Your task to perform on an android device: clear history in the chrome app Image 0: 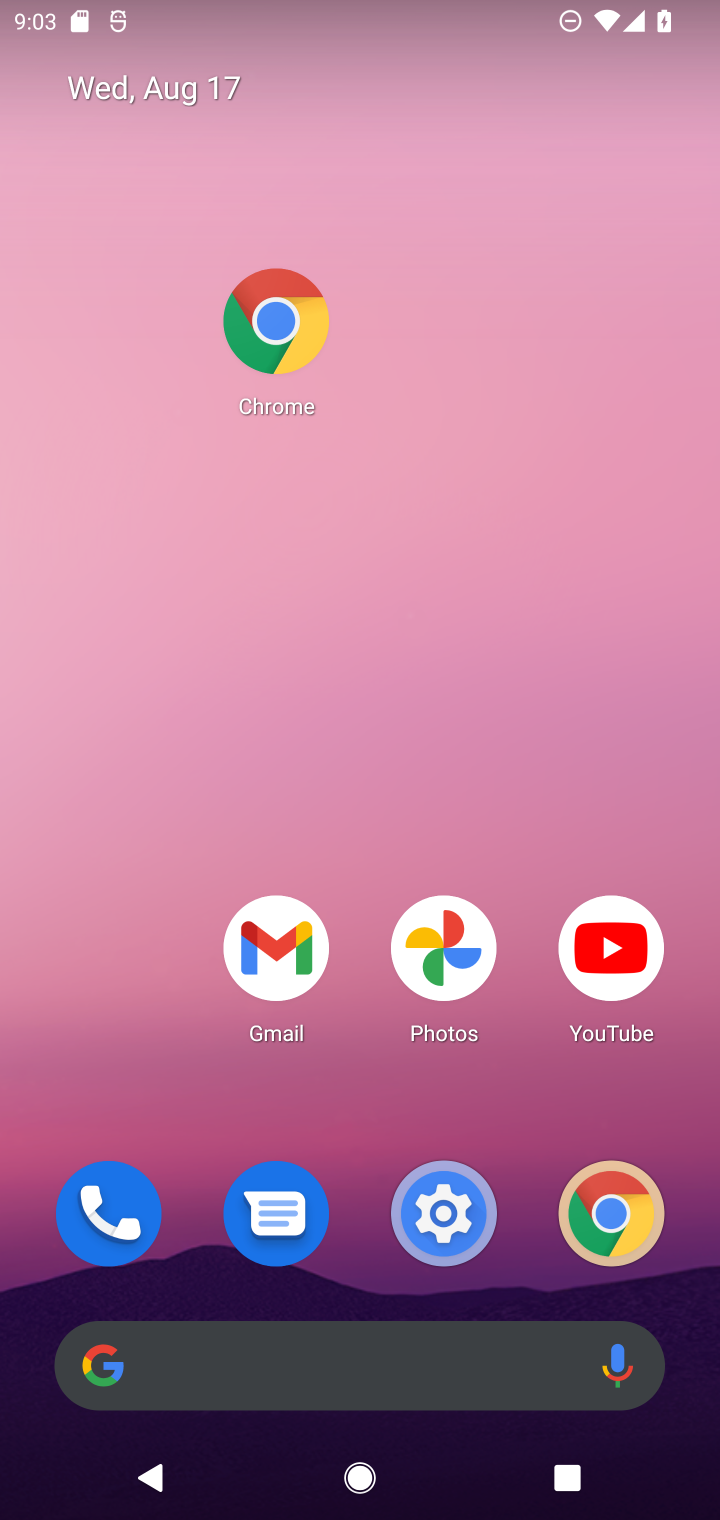
Step 0: click (601, 1192)
Your task to perform on an android device: clear history in the chrome app Image 1: 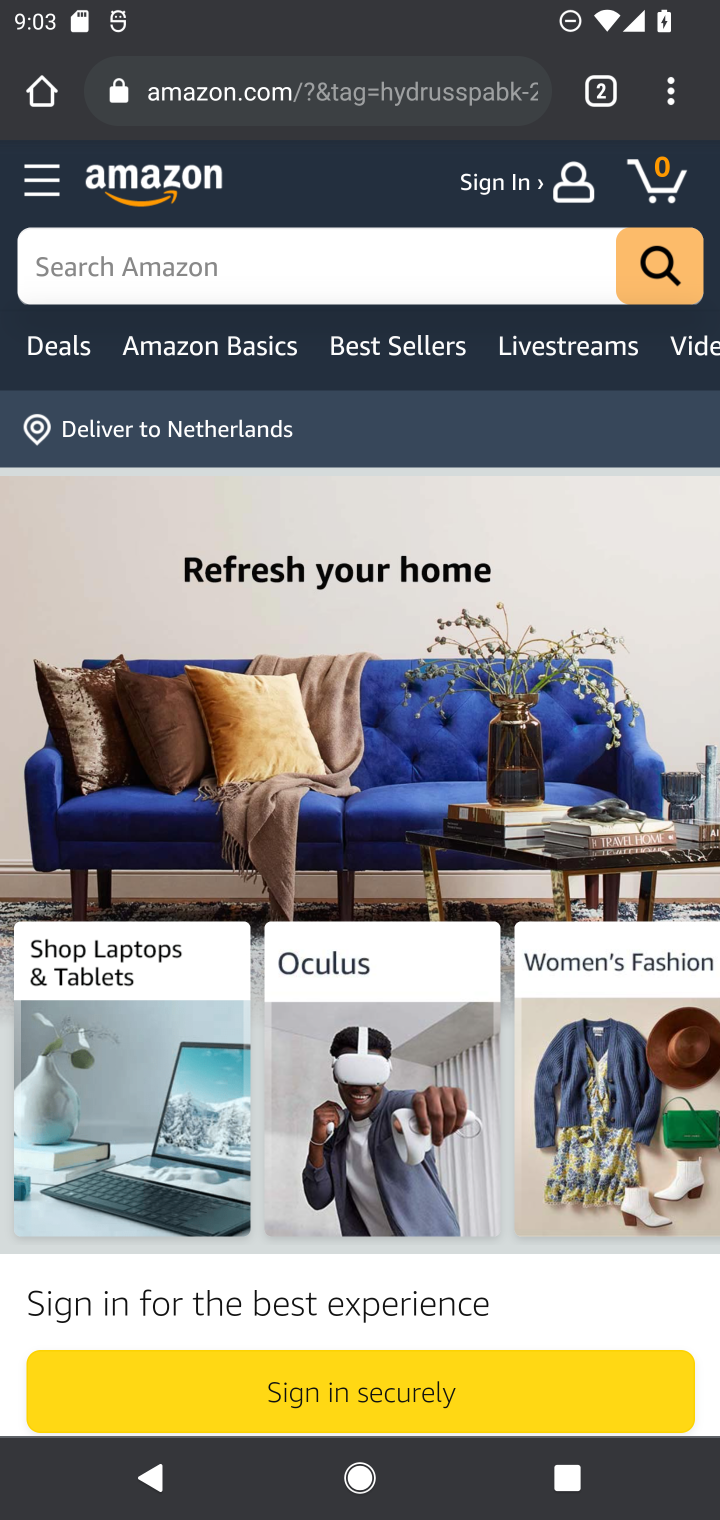
Step 1: click (682, 85)
Your task to perform on an android device: clear history in the chrome app Image 2: 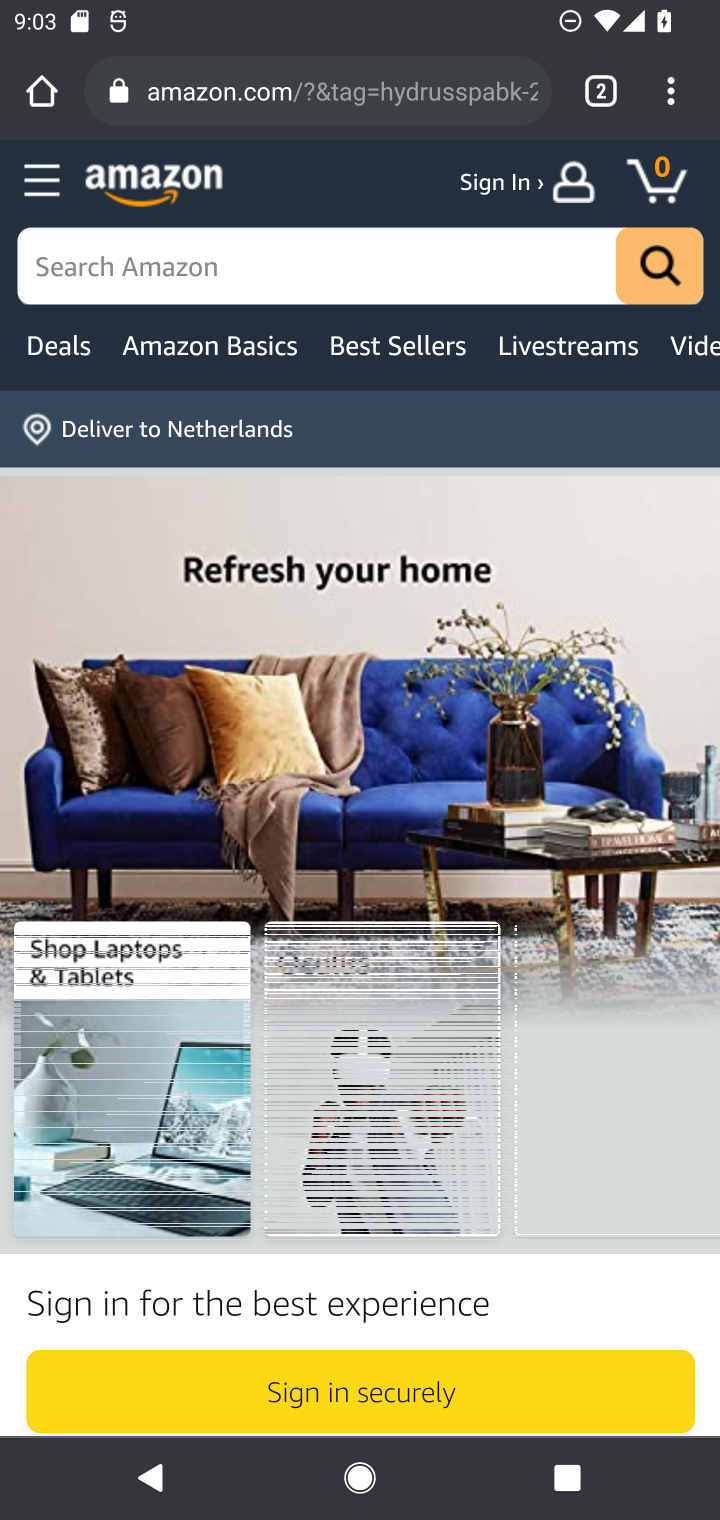
Step 2: click (682, 85)
Your task to perform on an android device: clear history in the chrome app Image 3: 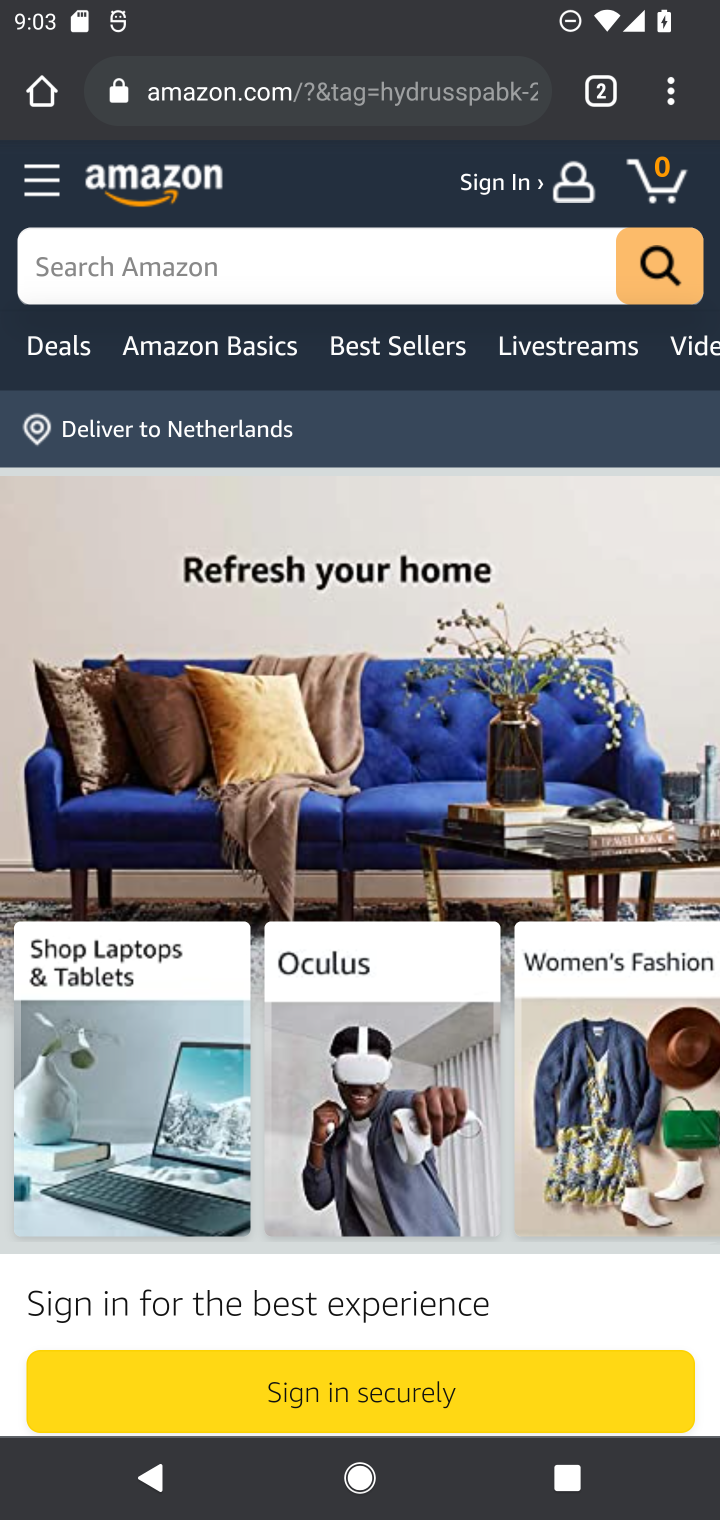
Step 3: click (668, 101)
Your task to perform on an android device: clear history in the chrome app Image 4: 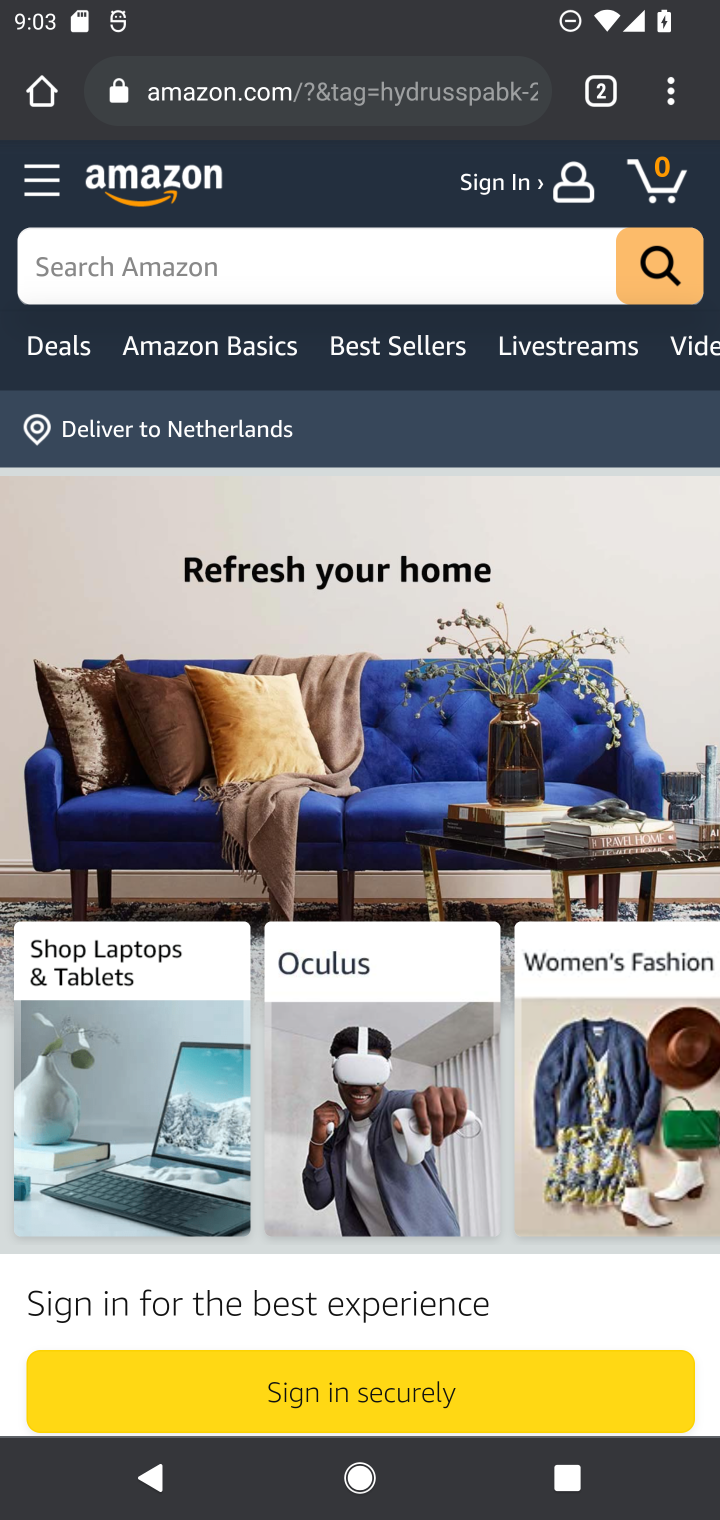
Step 4: task complete